Your task to perform on an android device: set an alarm Image 0: 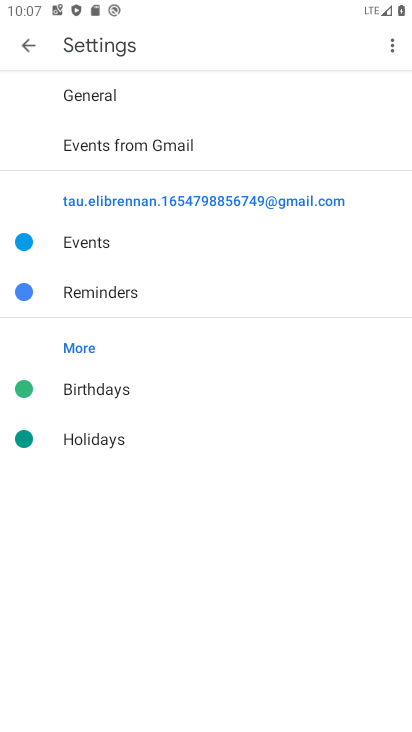
Step 0: press home button
Your task to perform on an android device: set an alarm Image 1: 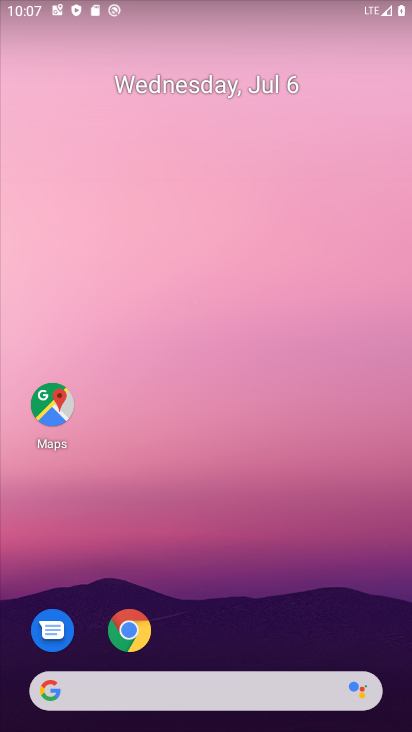
Step 1: drag from (377, 617) to (284, 230)
Your task to perform on an android device: set an alarm Image 2: 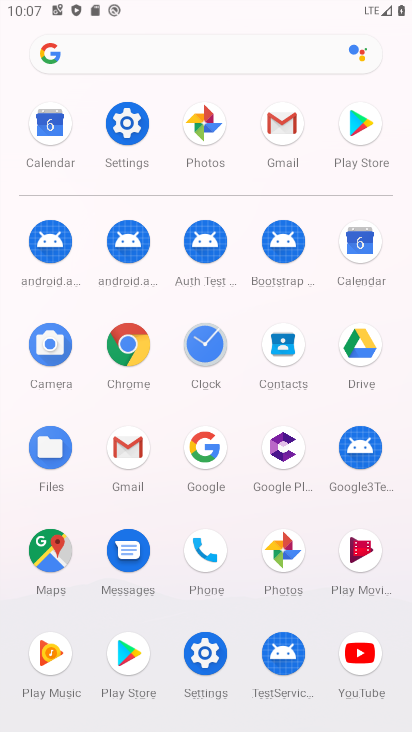
Step 2: click (202, 345)
Your task to perform on an android device: set an alarm Image 3: 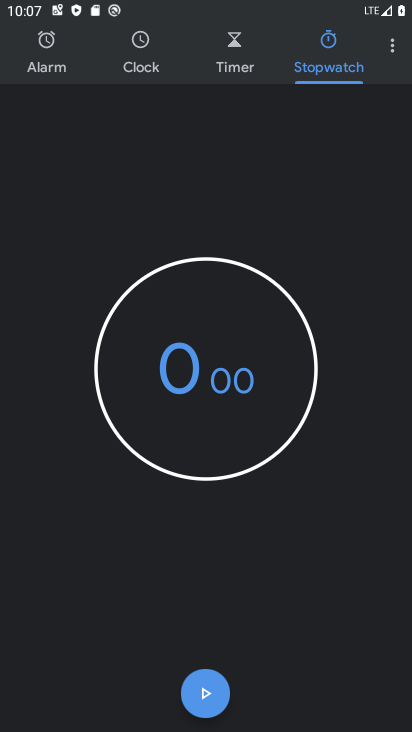
Step 3: click (48, 53)
Your task to perform on an android device: set an alarm Image 4: 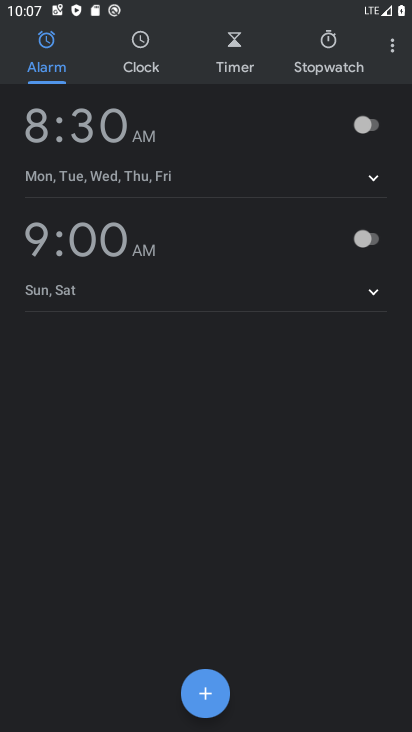
Step 4: click (79, 133)
Your task to perform on an android device: set an alarm Image 5: 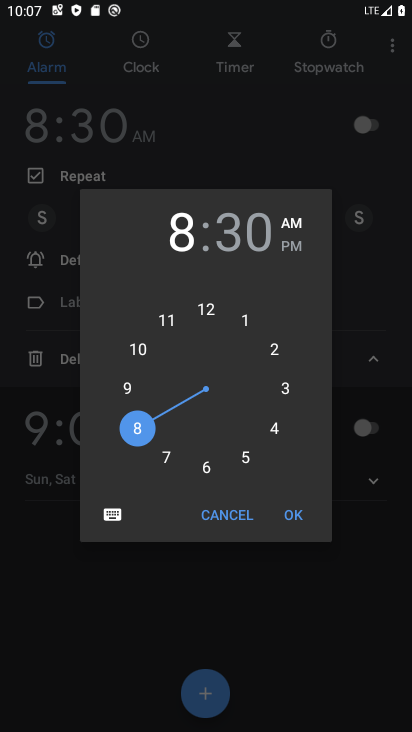
Step 5: click (207, 475)
Your task to perform on an android device: set an alarm Image 6: 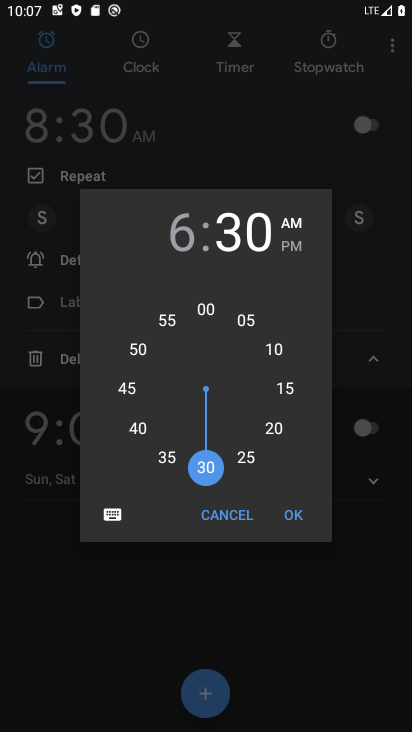
Step 6: click (286, 385)
Your task to perform on an android device: set an alarm Image 7: 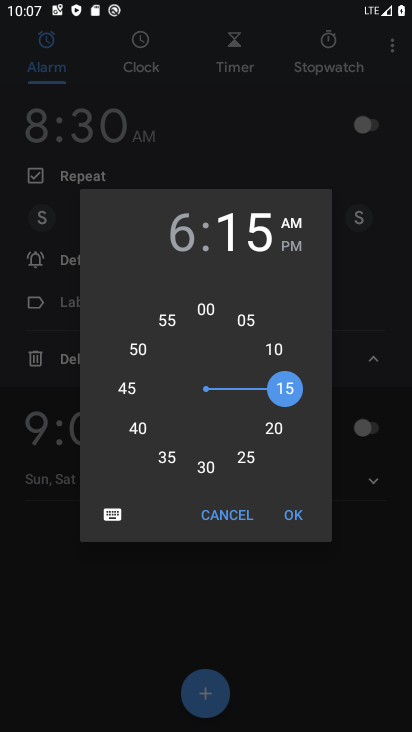
Step 7: click (292, 516)
Your task to perform on an android device: set an alarm Image 8: 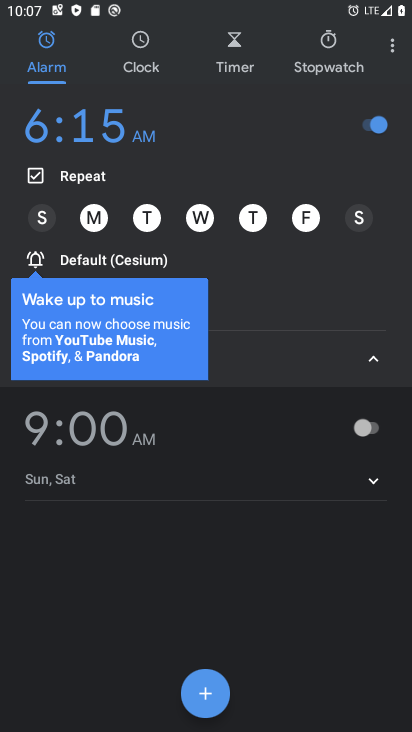
Step 8: click (357, 218)
Your task to perform on an android device: set an alarm Image 9: 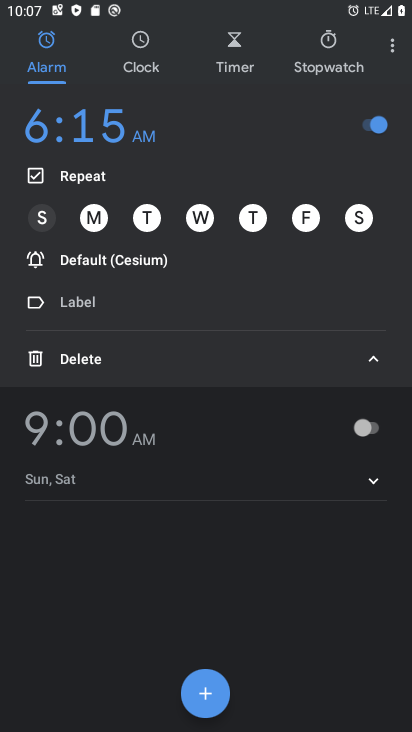
Step 9: click (372, 360)
Your task to perform on an android device: set an alarm Image 10: 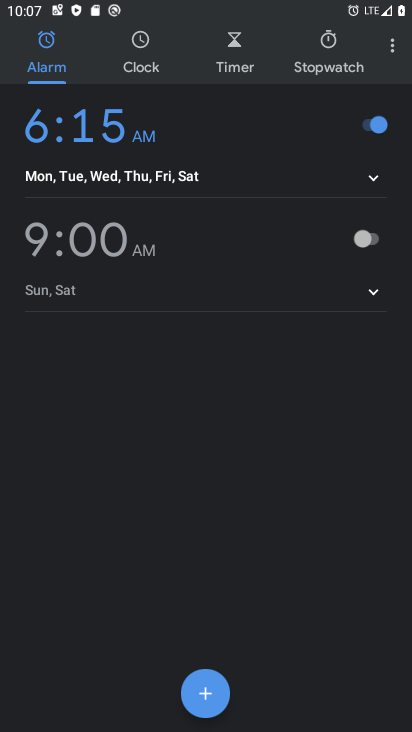
Step 10: task complete